Your task to perform on an android device: Open calendar and show me the fourth week of next month Image 0: 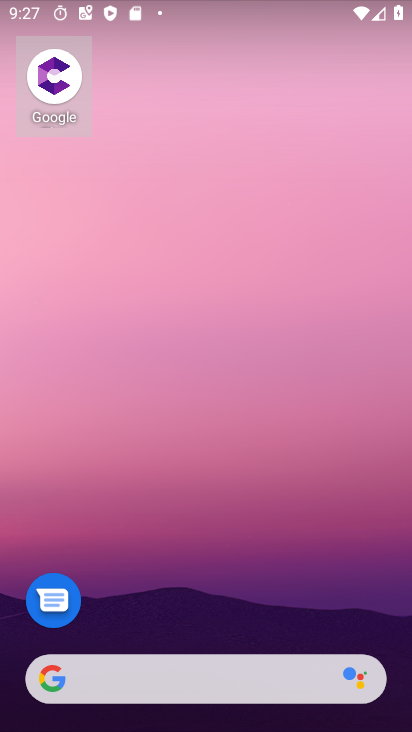
Step 0: drag from (191, 593) to (179, 1)
Your task to perform on an android device: Open calendar and show me the fourth week of next month Image 1: 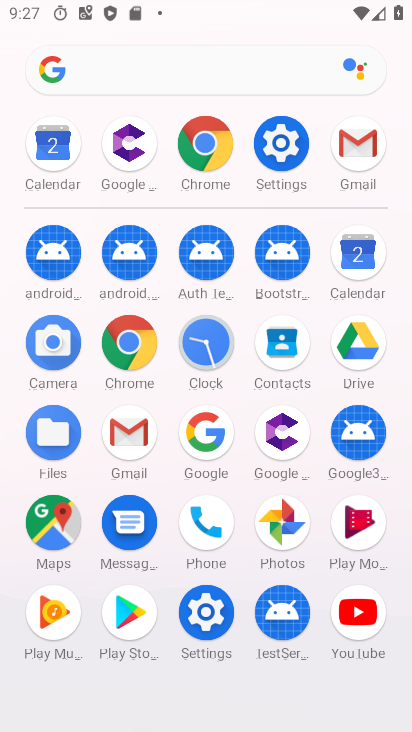
Step 1: click (354, 255)
Your task to perform on an android device: Open calendar and show me the fourth week of next month Image 2: 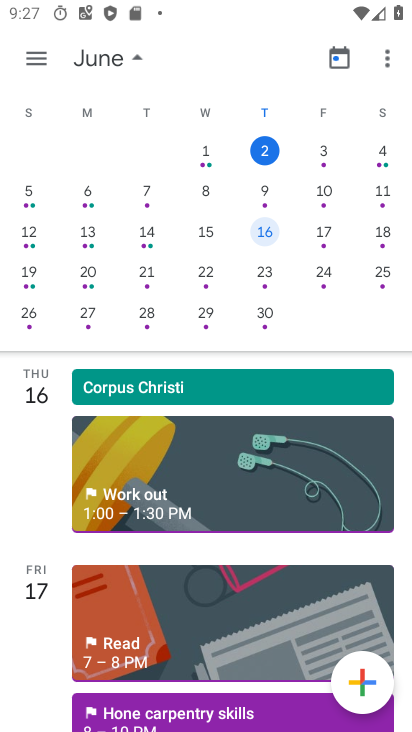
Step 2: drag from (380, 318) to (10, 283)
Your task to perform on an android device: Open calendar and show me the fourth week of next month Image 3: 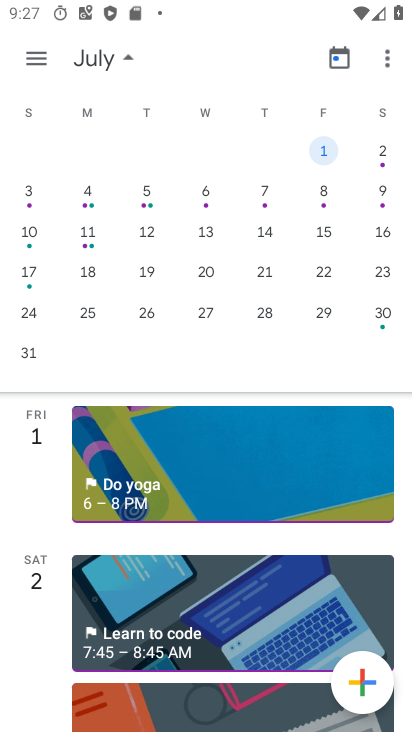
Step 3: click (274, 278)
Your task to perform on an android device: Open calendar and show me the fourth week of next month Image 4: 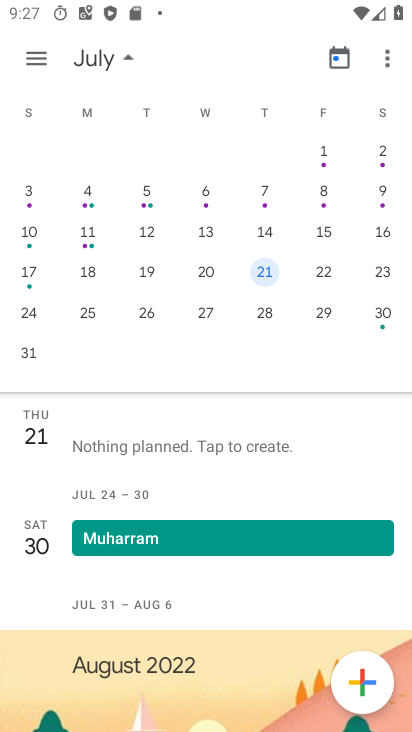
Step 4: task complete